Your task to perform on an android device: Open Android settings Image 0: 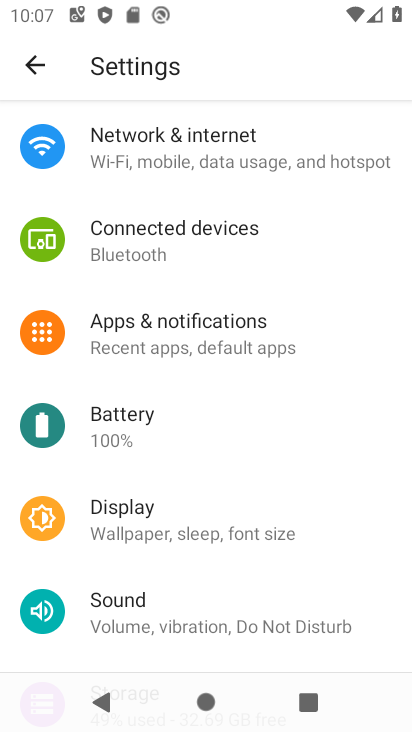
Step 0: press home button
Your task to perform on an android device: Open Android settings Image 1: 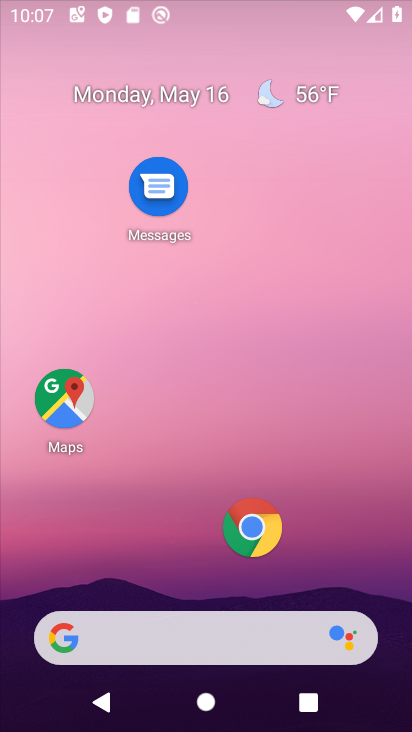
Step 1: drag from (181, 552) to (146, 51)
Your task to perform on an android device: Open Android settings Image 2: 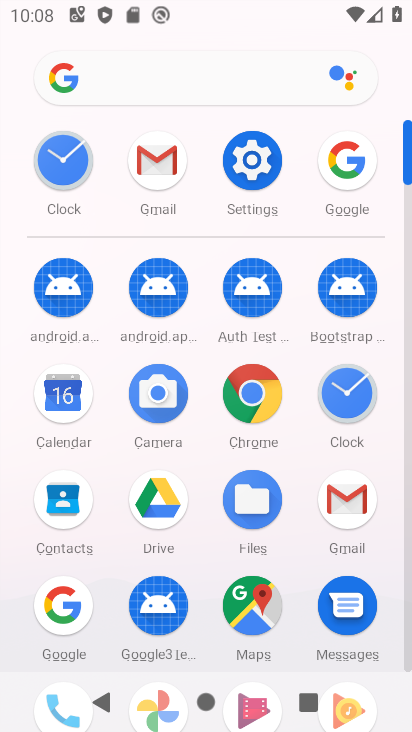
Step 2: click (250, 161)
Your task to perform on an android device: Open Android settings Image 3: 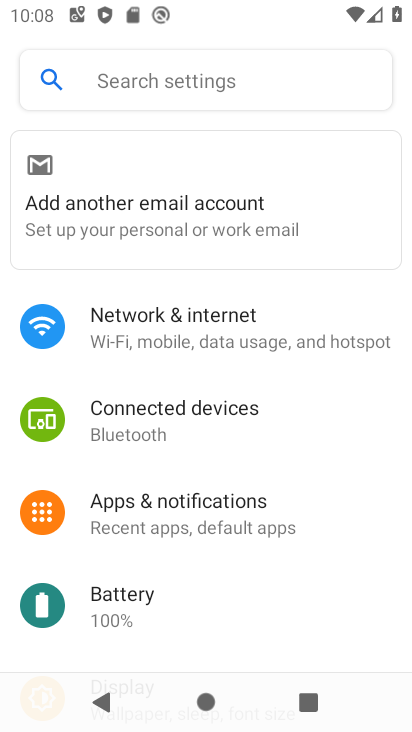
Step 3: task complete